Your task to perform on an android device: Open sound settings Image 0: 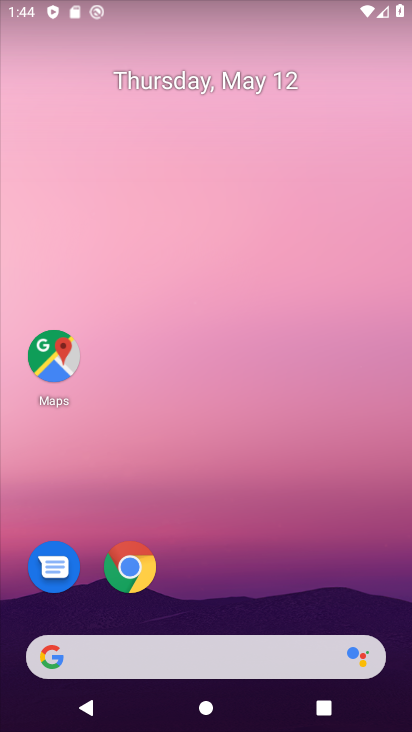
Step 0: drag from (221, 253) to (221, 201)
Your task to perform on an android device: Open sound settings Image 1: 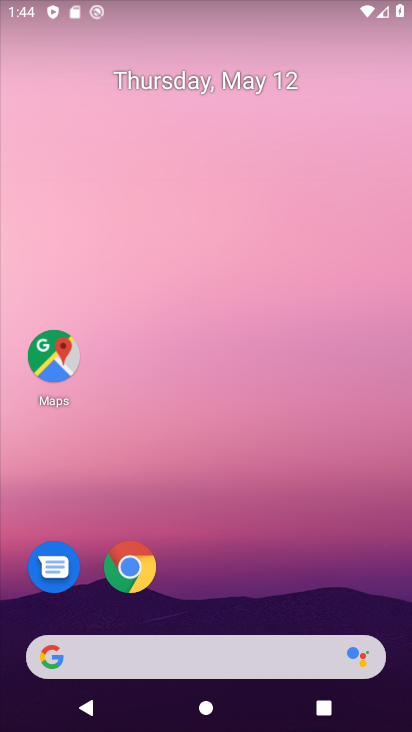
Step 1: drag from (256, 633) to (262, 261)
Your task to perform on an android device: Open sound settings Image 2: 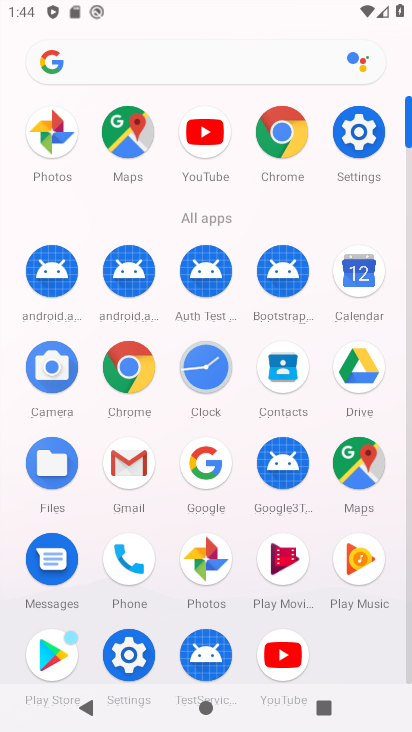
Step 2: click (364, 128)
Your task to perform on an android device: Open sound settings Image 3: 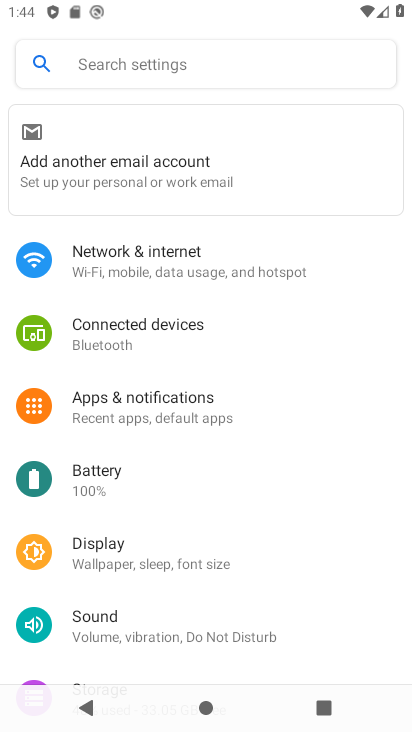
Step 3: drag from (149, 576) to (158, 255)
Your task to perform on an android device: Open sound settings Image 4: 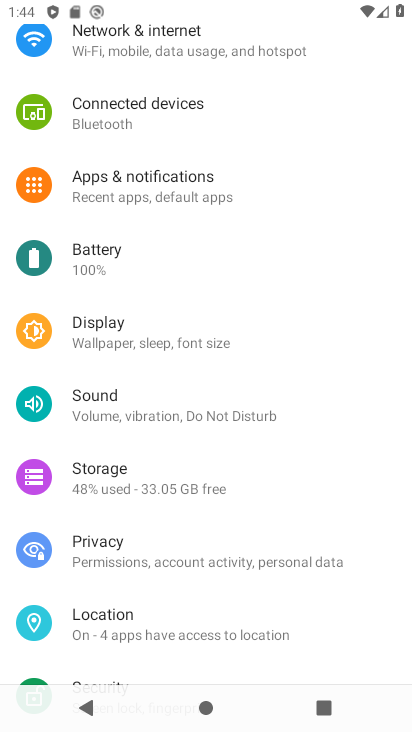
Step 4: click (91, 404)
Your task to perform on an android device: Open sound settings Image 5: 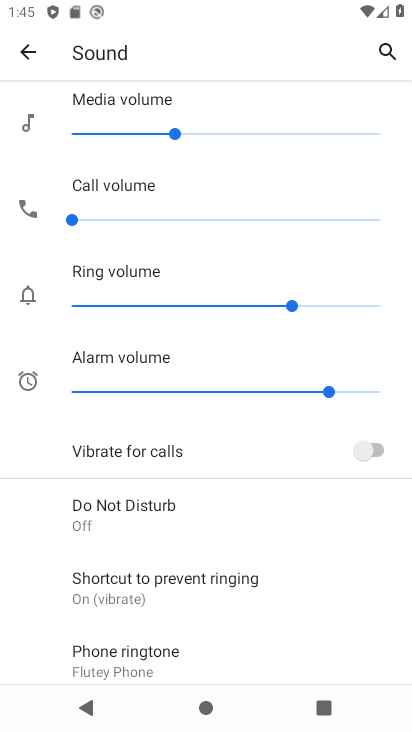
Step 5: drag from (187, 666) to (187, 251)
Your task to perform on an android device: Open sound settings Image 6: 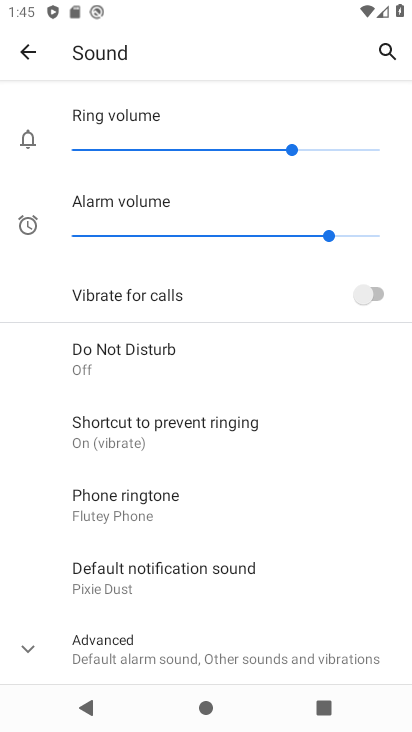
Step 6: click (136, 647)
Your task to perform on an android device: Open sound settings Image 7: 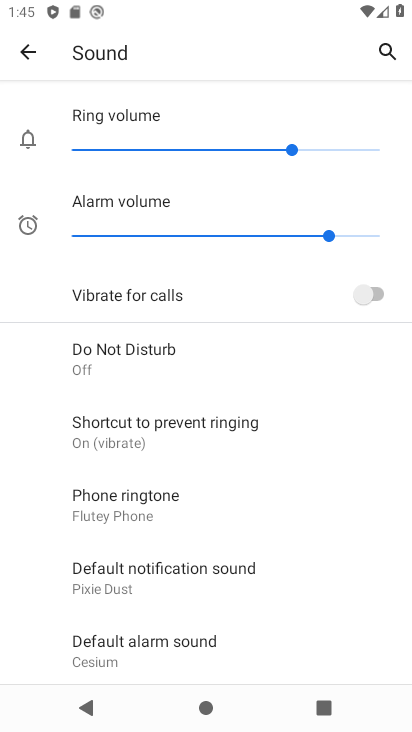
Step 7: task complete